Your task to perform on an android device: find snoozed emails in the gmail app Image 0: 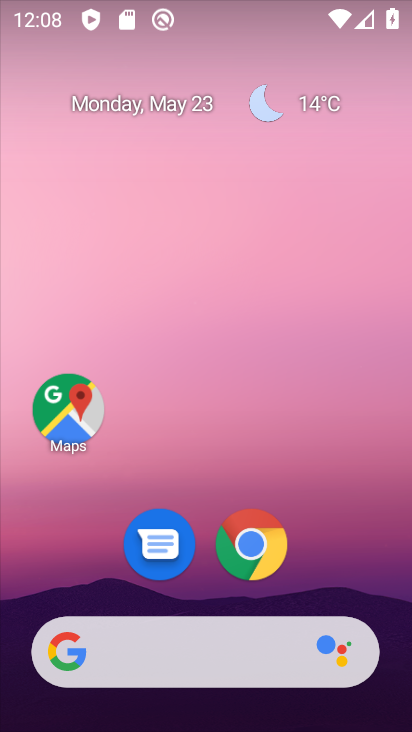
Step 0: drag from (359, 524) to (276, 28)
Your task to perform on an android device: find snoozed emails in the gmail app Image 1: 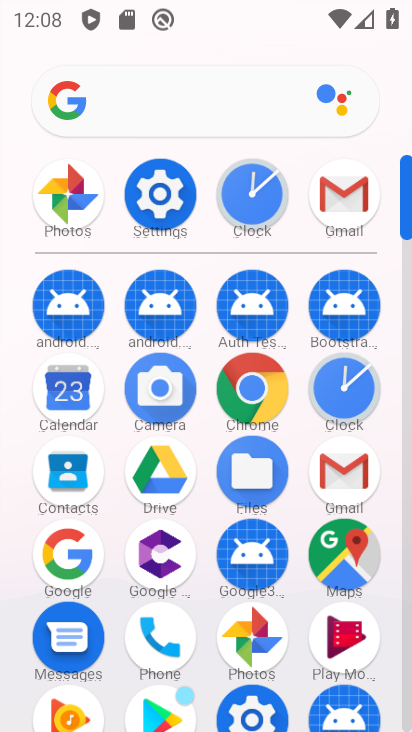
Step 1: click (346, 196)
Your task to perform on an android device: find snoozed emails in the gmail app Image 2: 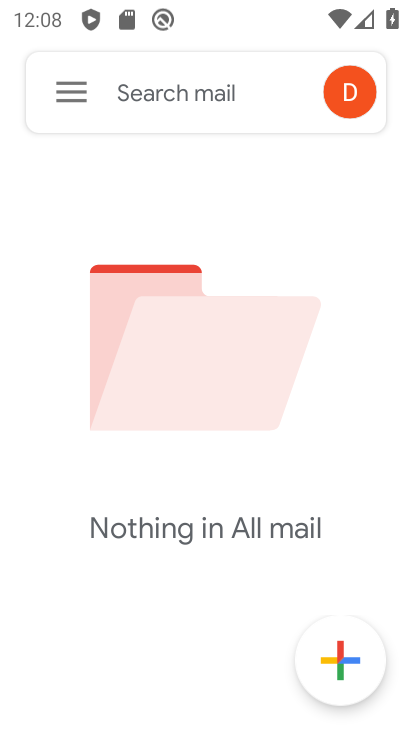
Step 2: click (75, 97)
Your task to perform on an android device: find snoozed emails in the gmail app Image 3: 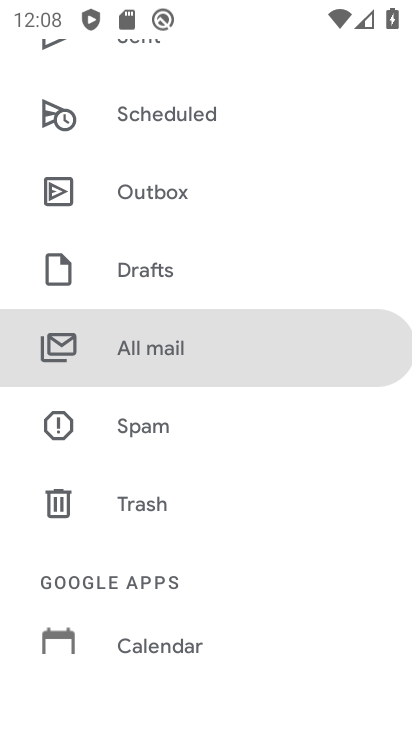
Step 3: drag from (170, 458) to (186, 684)
Your task to perform on an android device: find snoozed emails in the gmail app Image 4: 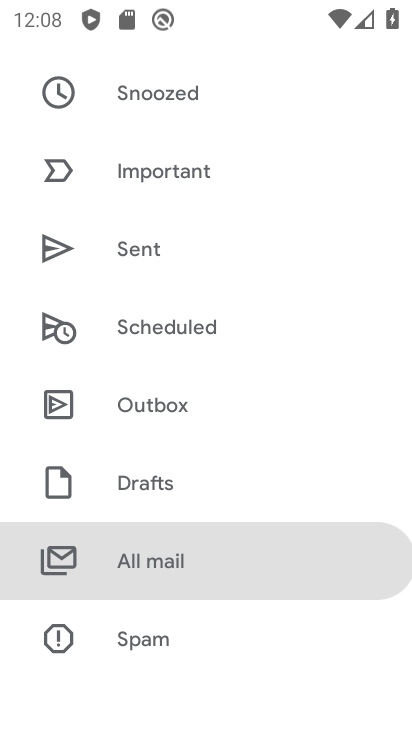
Step 4: drag from (156, 190) to (195, 516)
Your task to perform on an android device: find snoozed emails in the gmail app Image 5: 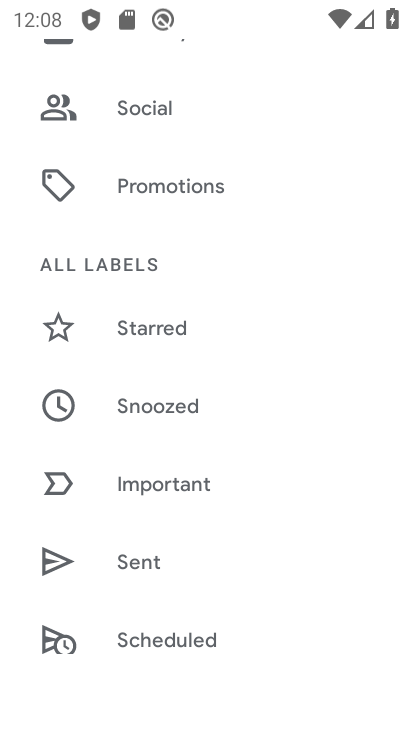
Step 5: click (145, 424)
Your task to perform on an android device: find snoozed emails in the gmail app Image 6: 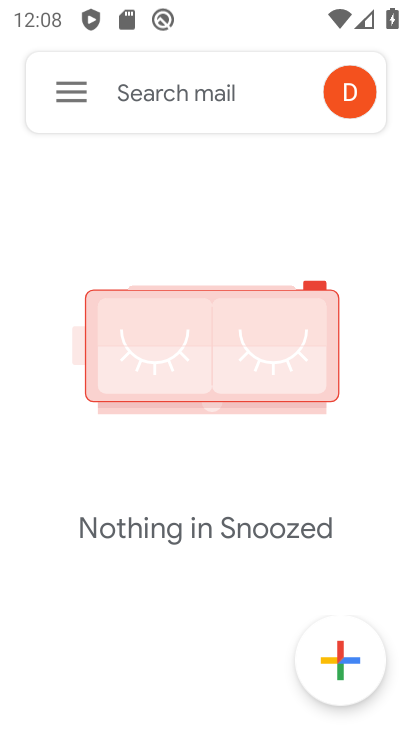
Step 6: task complete